Your task to perform on an android device: Open the calendar and show me this week's events Image 0: 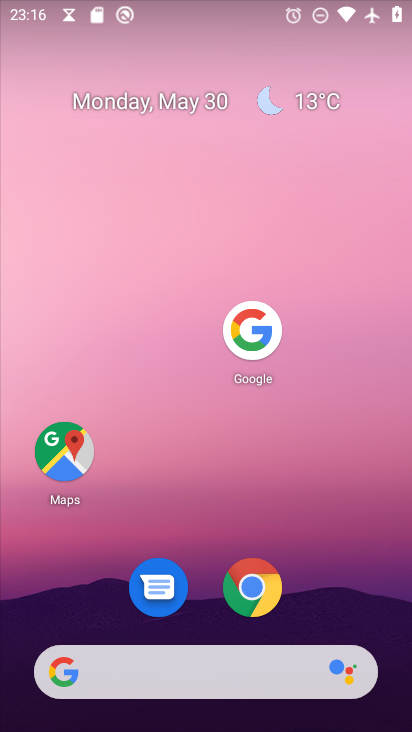
Step 0: press home button
Your task to perform on an android device: Open the calendar and show me this week's events Image 1: 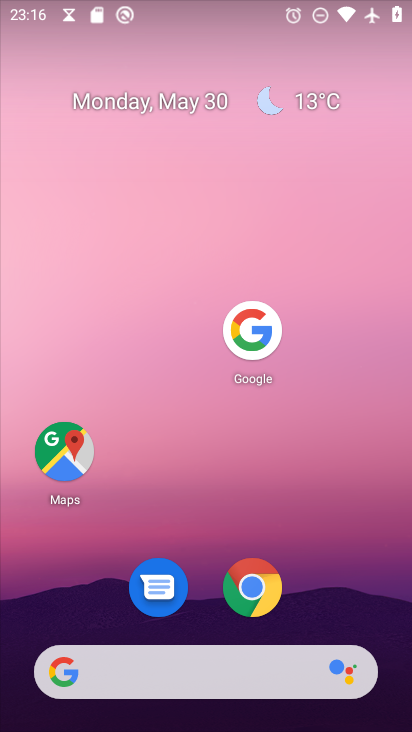
Step 1: drag from (234, 678) to (264, 40)
Your task to perform on an android device: Open the calendar and show me this week's events Image 2: 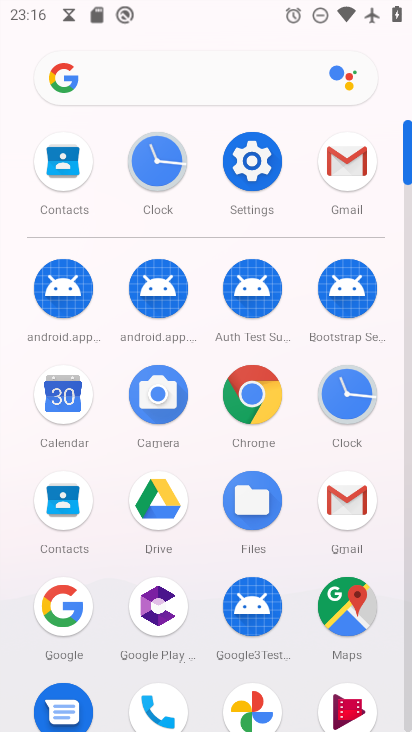
Step 2: click (69, 402)
Your task to perform on an android device: Open the calendar and show me this week's events Image 3: 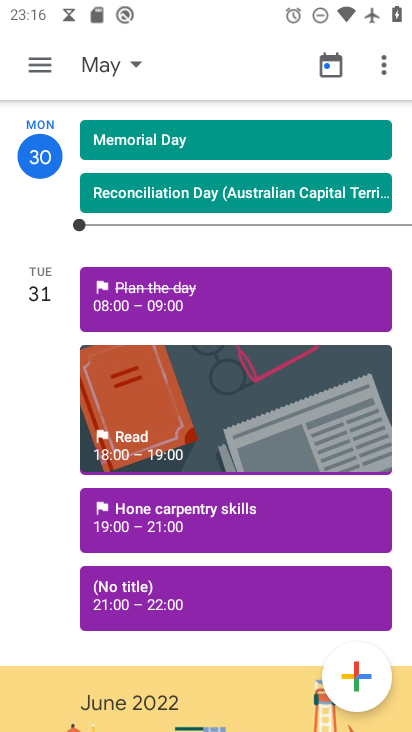
Step 3: click (101, 68)
Your task to perform on an android device: Open the calendar and show me this week's events Image 4: 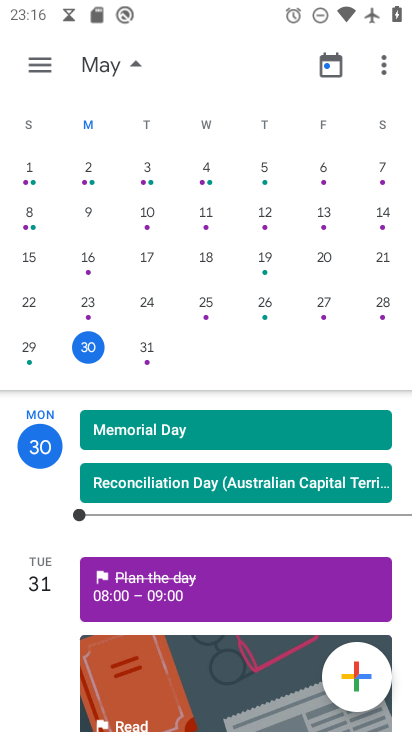
Step 4: click (51, 55)
Your task to perform on an android device: Open the calendar and show me this week's events Image 5: 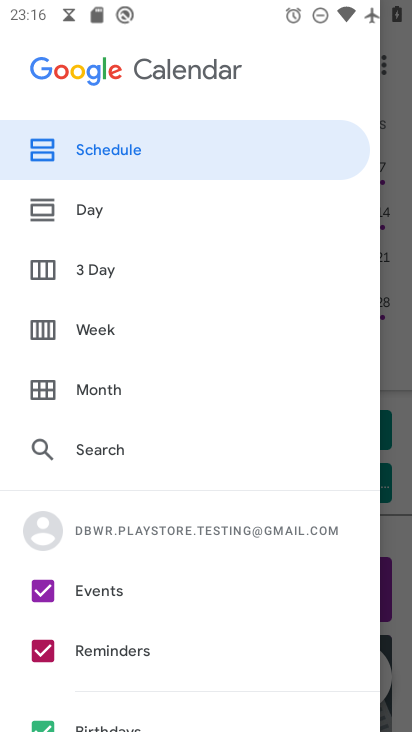
Step 5: click (115, 331)
Your task to perform on an android device: Open the calendar and show me this week's events Image 6: 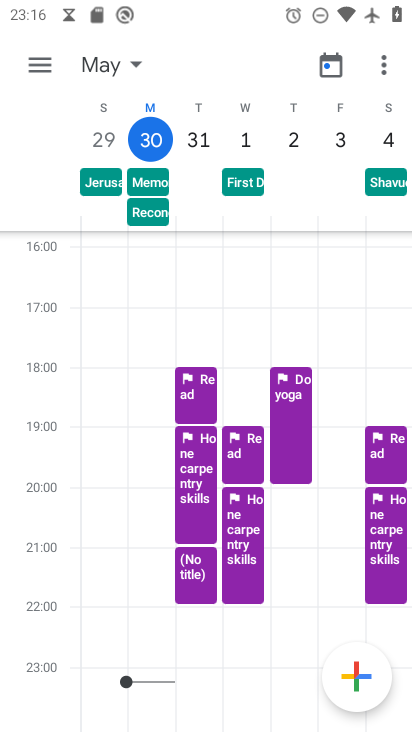
Step 6: click (46, 72)
Your task to perform on an android device: Open the calendar and show me this week's events Image 7: 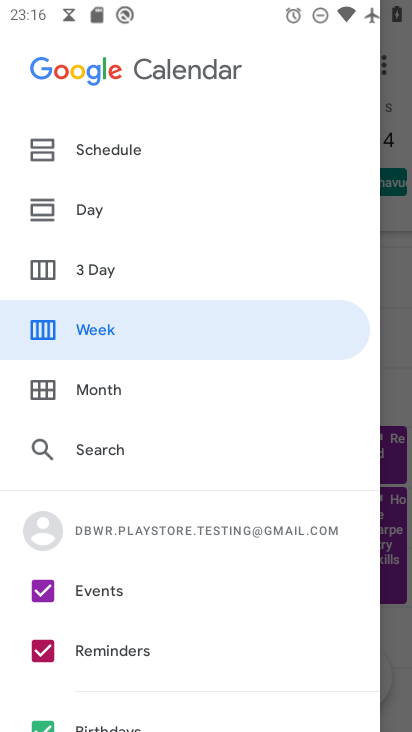
Step 7: click (95, 151)
Your task to perform on an android device: Open the calendar and show me this week's events Image 8: 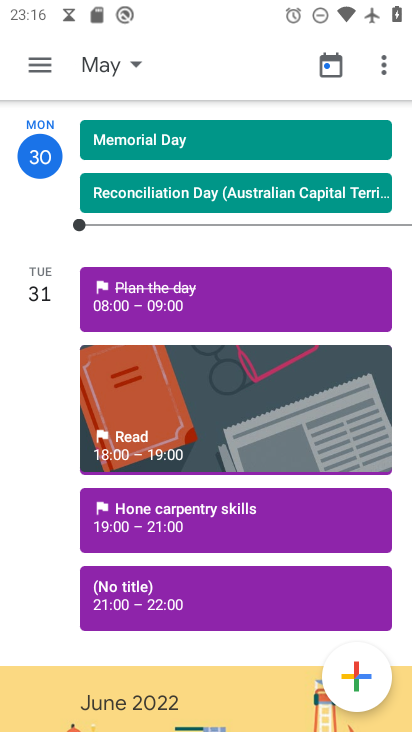
Step 8: click (166, 526)
Your task to perform on an android device: Open the calendar and show me this week's events Image 9: 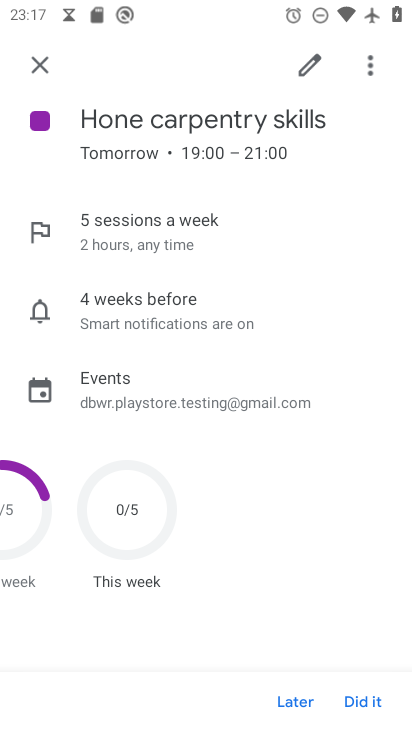
Step 9: task complete